Your task to perform on an android device: Is it going to rain tomorrow? Image 0: 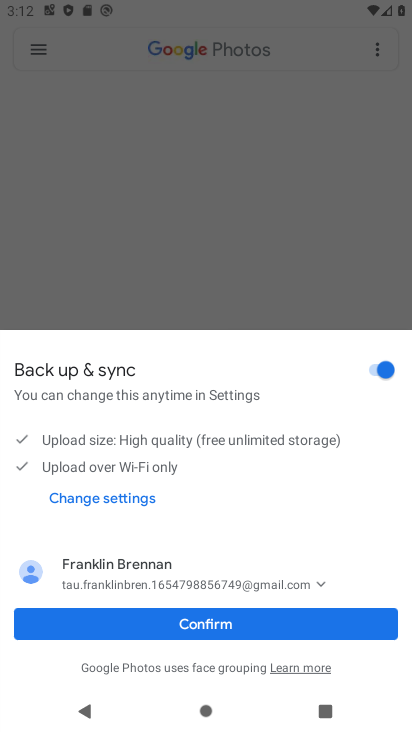
Step 0: press home button
Your task to perform on an android device: Is it going to rain tomorrow? Image 1: 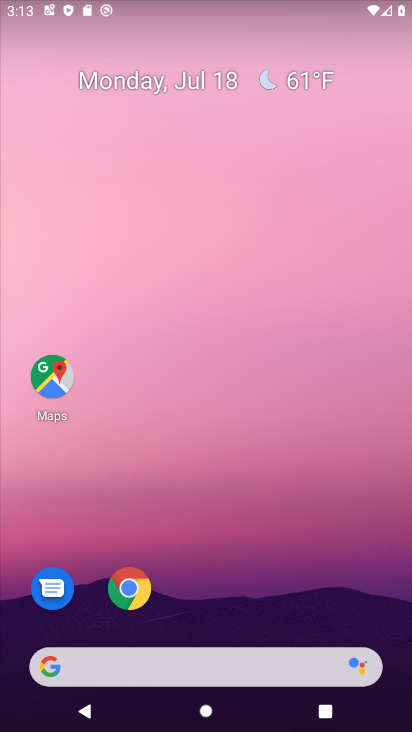
Step 1: click (181, 673)
Your task to perform on an android device: Is it going to rain tomorrow? Image 2: 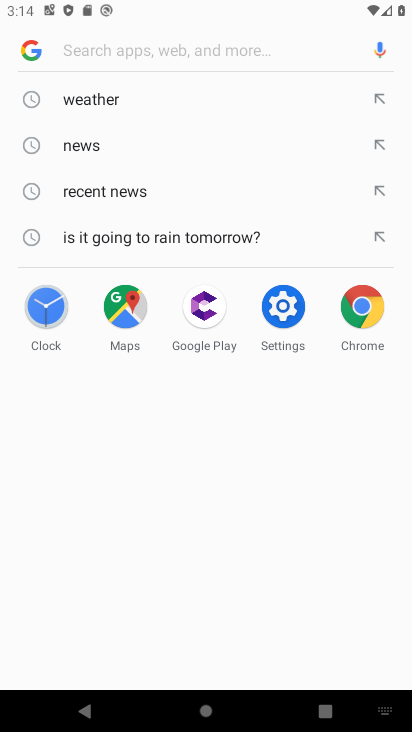
Step 2: click (164, 92)
Your task to perform on an android device: Is it going to rain tomorrow? Image 3: 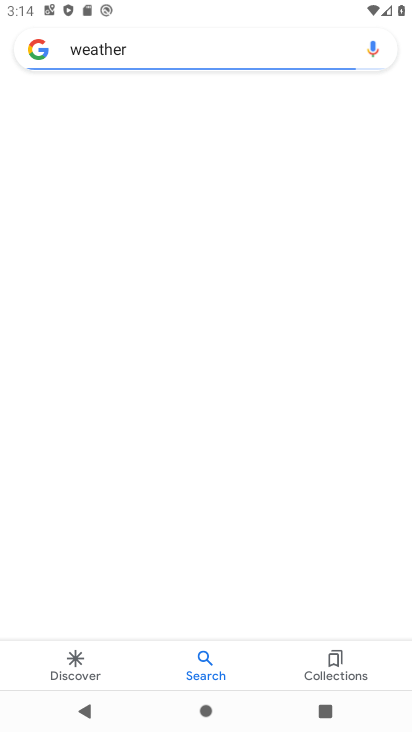
Step 3: task complete